Your task to perform on an android device: Go to internet settings Image 0: 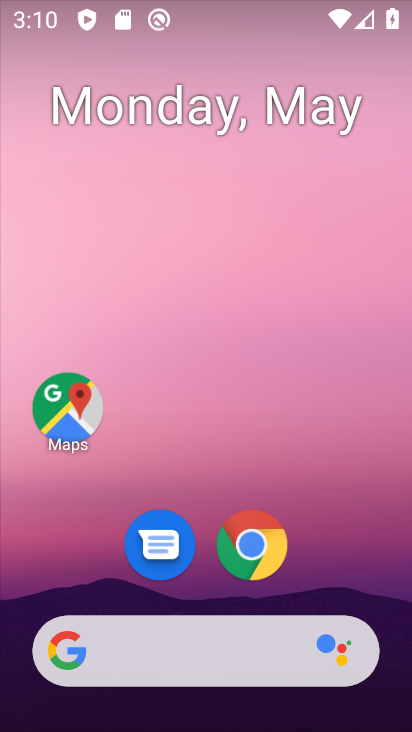
Step 0: drag from (326, 358) to (323, 39)
Your task to perform on an android device: Go to internet settings Image 1: 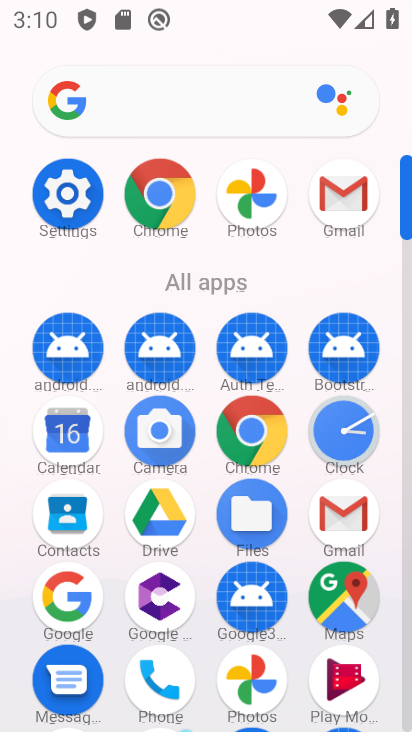
Step 1: click (86, 207)
Your task to perform on an android device: Go to internet settings Image 2: 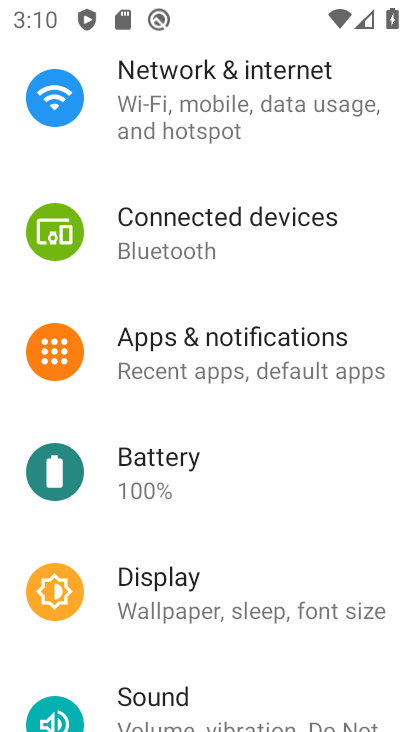
Step 2: click (260, 128)
Your task to perform on an android device: Go to internet settings Image 3: 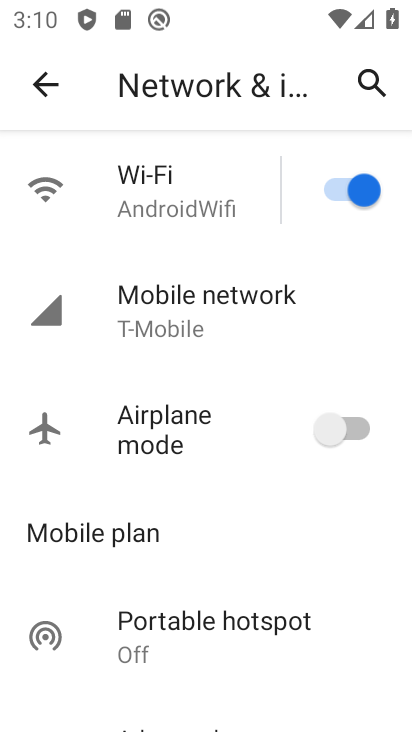
Step 3: click (178, 204)
Your task to perform on an android device: Go to internet settings Image 4: 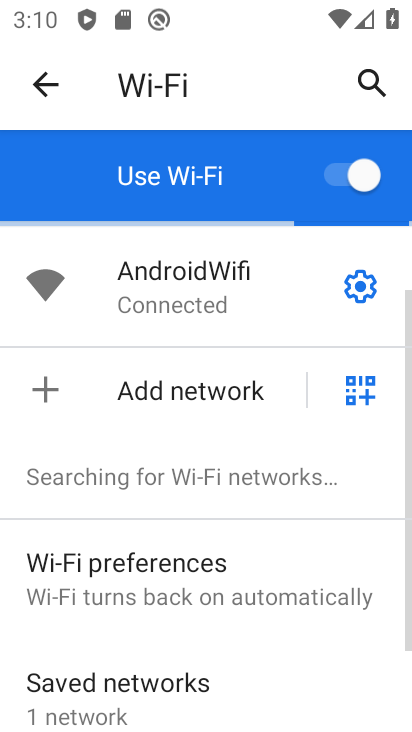
Step 4: task complete